Your task to perform on an android device: Open Youtube and go to "Your channel" Image 0: 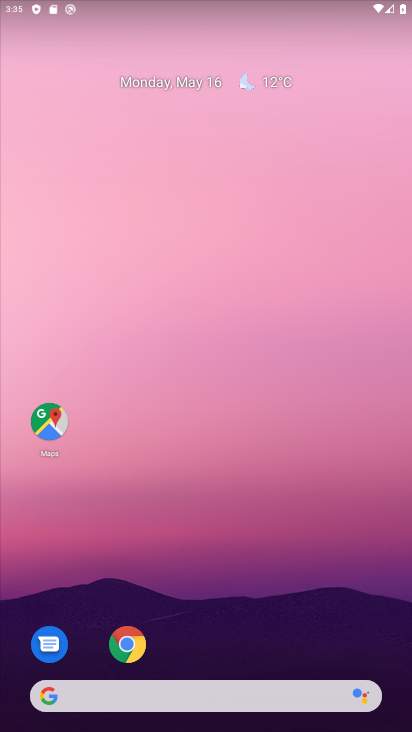
Step 0: drag from (264, 415) to (172, 113)
Your task to perform on an android device: Open Youtube and go to "Your channel" Image 1: 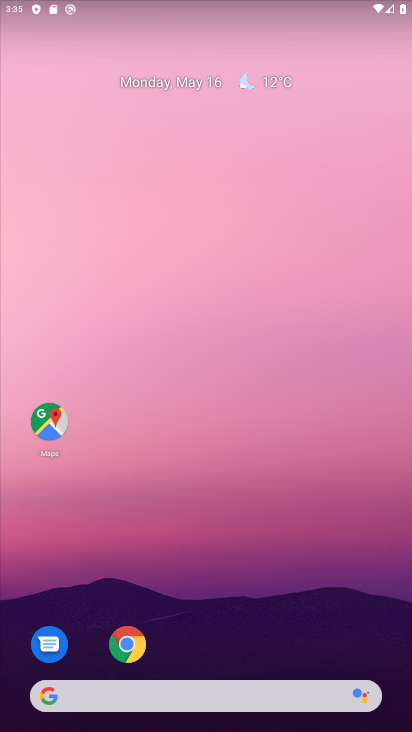
Step 1: drag from (221, 581) to (182, 119)
Your task to perform on an android device: Open Youtube and go to "Your channel" Image 2: 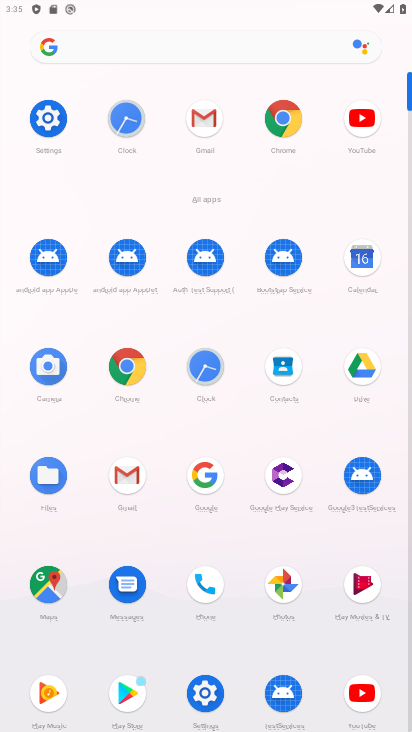
Step 2: click (368, 684)
Your task to perform on an android device: Open Youtube and go to "Your channel" Image 3: 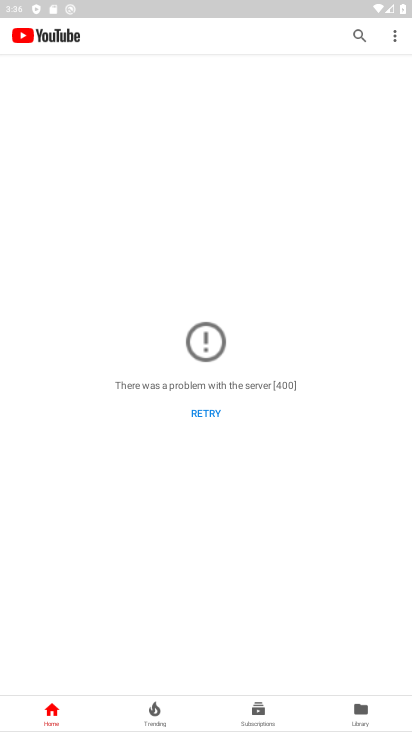
Step 3: click (56, 713)
Your task to perform on an android device: Open Youtube and go to "Your channel" Image 4: 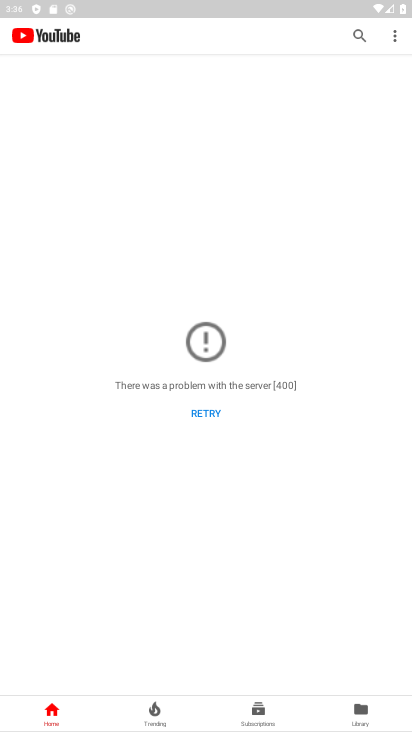
Step 4: click (387, 34)
Your task to perform on an android device: Open Youtube and go to "Your channel" Image 5: 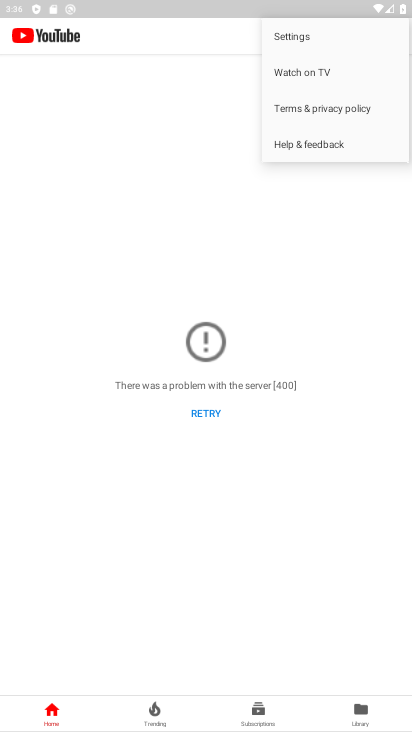
Step 5: click (299, 35)
Your task to perform on an android device: Open Youtube and go to "Your channel" Image 6: 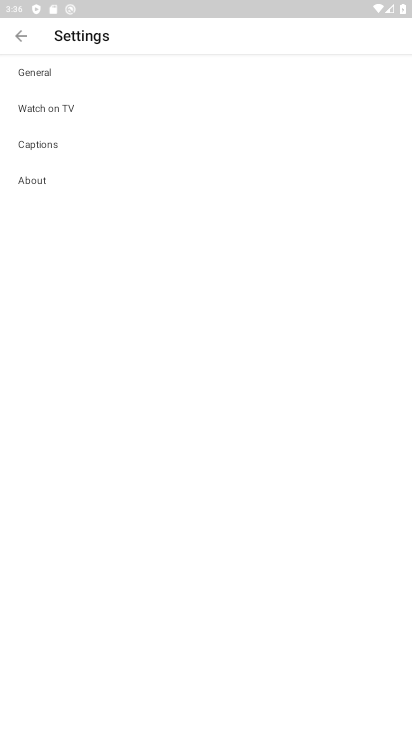
Step 6: click (28, 70)
Your task to perform on an android device: Open Youtube and go to "Your channel" Image 7: 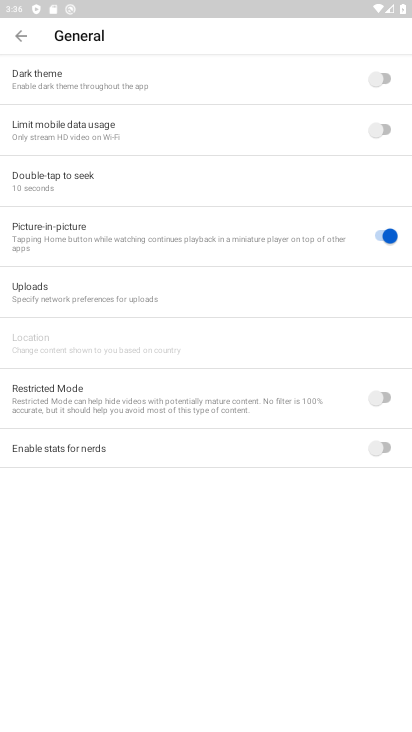
Step 7: click (16, 31)
Your task to perform on an android device: Open Youtube and go to "Your channel" Image 8: 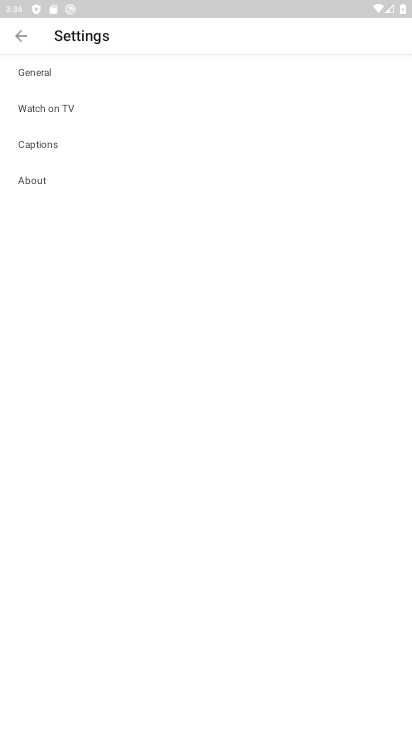
Step 8: click (16, 31)
Your task to perform on an android device: Open Youtube and go to "Your channel" Image 9: 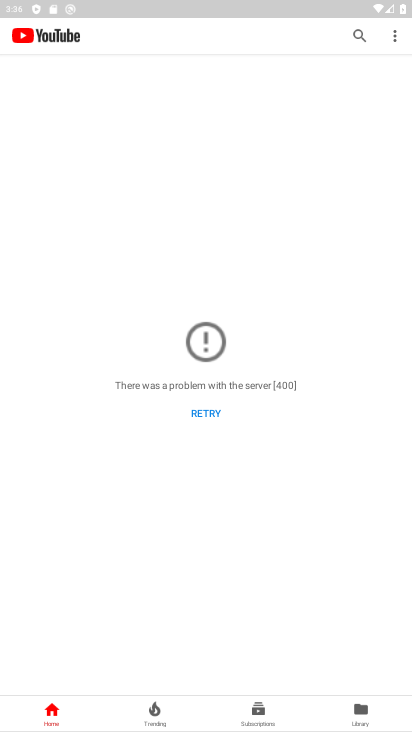
Step 9: click (21, 33)
Your task to perform on an android device: Open Youtube and go to "Your channel" Image 10: 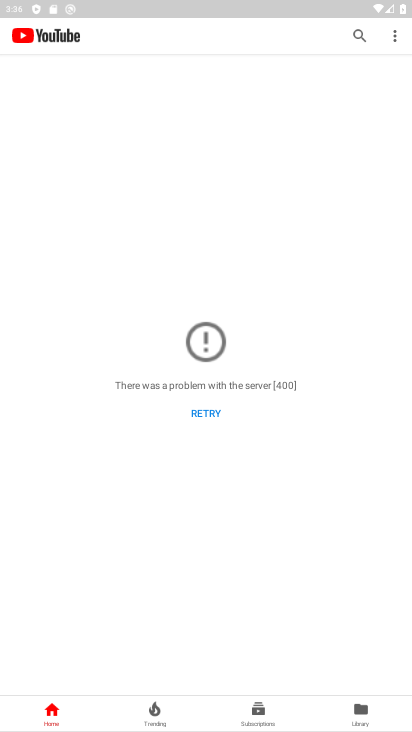
Step 10: click (58, 33)
Your task to perform on an android device: Open Youtube and go to "Your channel" Image 11: 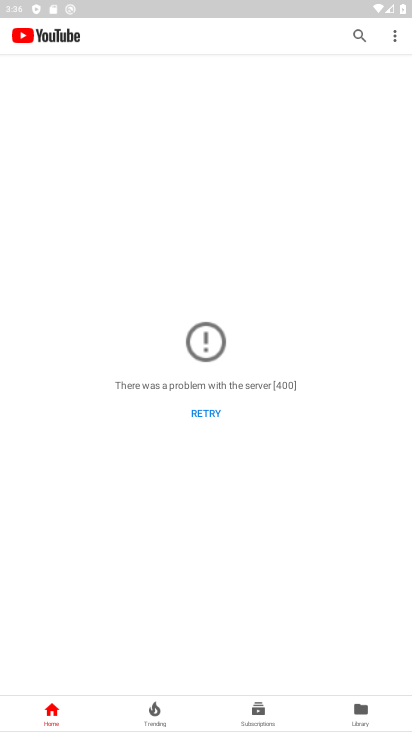
Step 11: task complete